Your task to perform on an android device: Open calendar and show me the third week of next month Image 0: 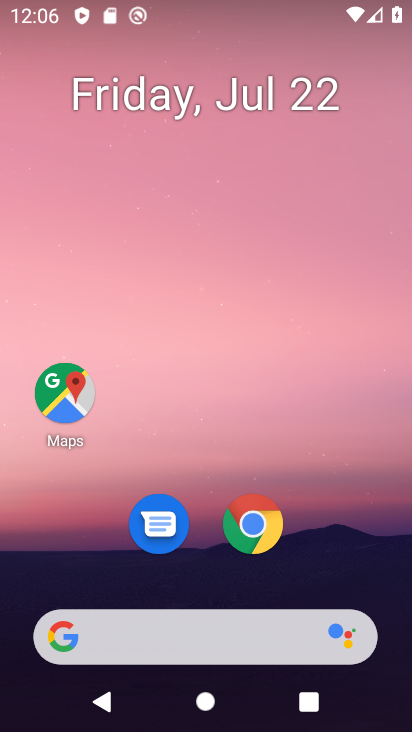
Step 0: drag from (275, 585) to (406, 105)
Your task to perform on an android device: Open calendar and show me the third week of next month Image 1: 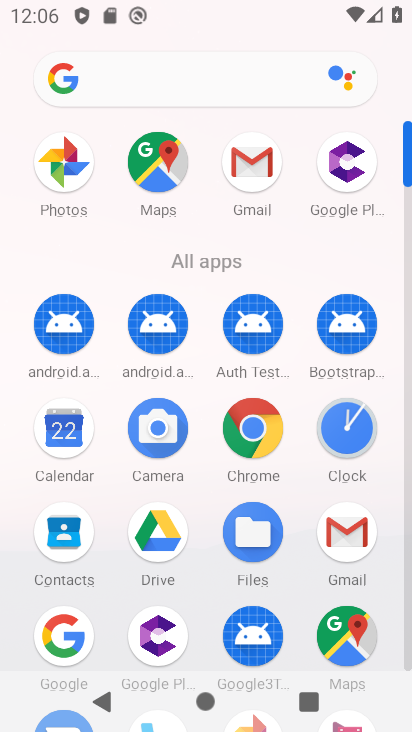
Step 1: click (74, 439)
Your task to perform on an android device: Open calendar and show me the third week of next month Image 2: 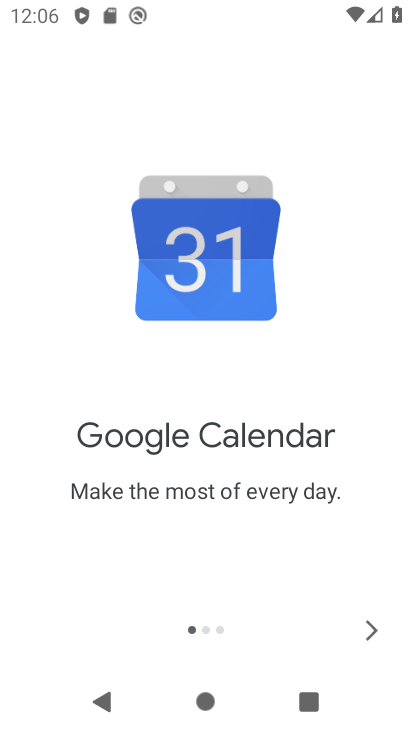
Step 2: click (374, 631)
Your task to perform on an android device: Open calendar and show me the third week of next month Image 3: 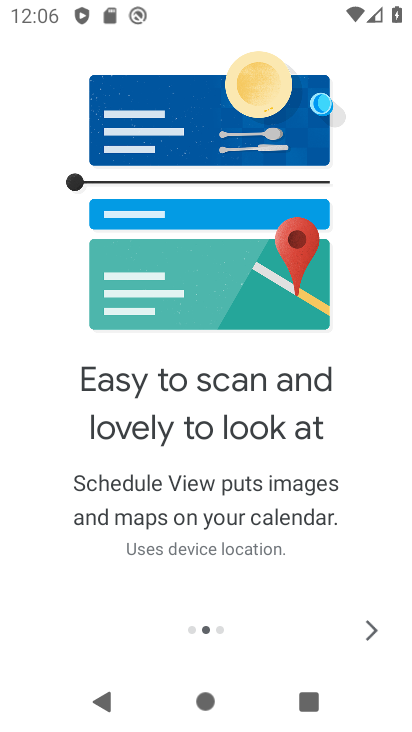
Step 3: click (374, 631)
Your task to perform on an android device: Open calendar and show me the third week of next month Image 4: 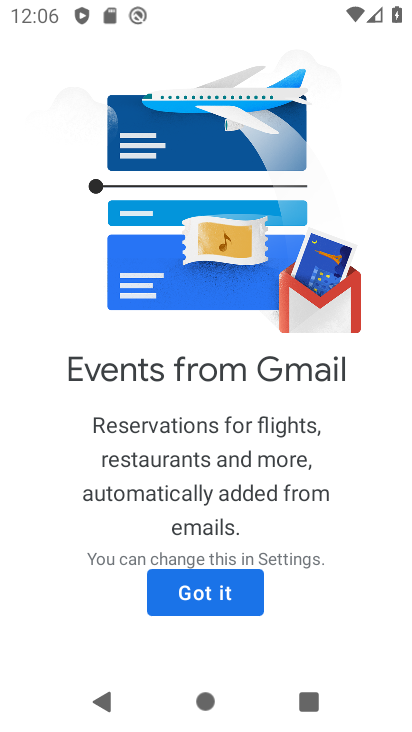
Step 4: click (204, 596)
Your task to perform on an android device: Open calendar and show me the third week of next month Image 5: 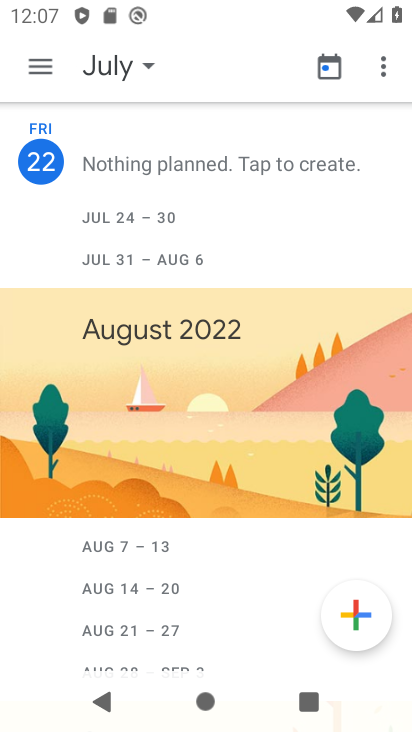
Step 5: click (117, 64)
Your task to perform on an android device: Open calendar and show me the third week of next month Image 6: 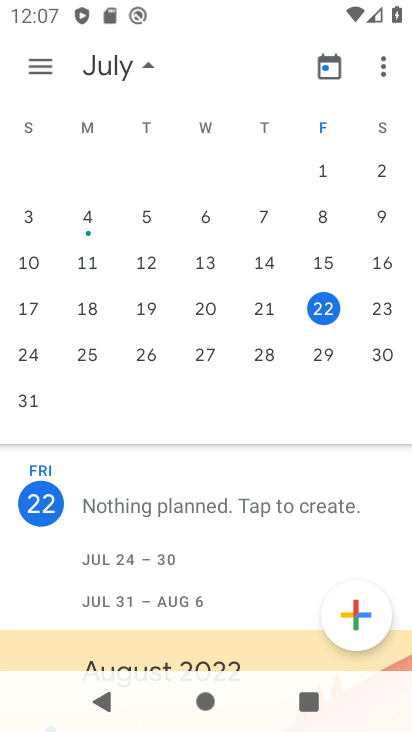
Step 6: drag from (351, 256) to (0, 282)
Your task to perform on an android device: Open calendar and show me the third week of next month Image 7: 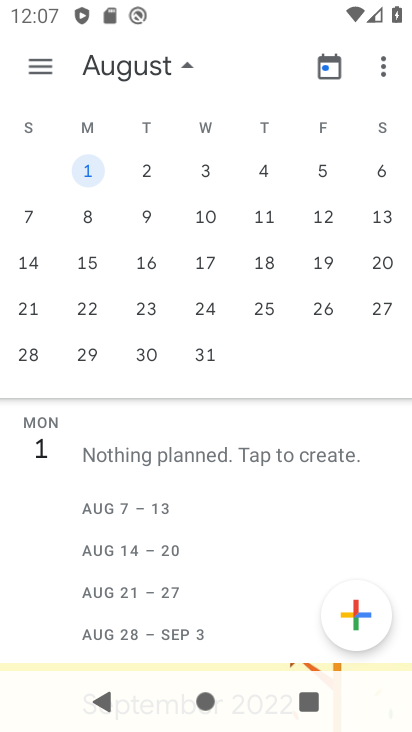
Step 7: click (31, 262)
Your task to perform on an android device: Open calendar and show me the third week of next month Image 8: 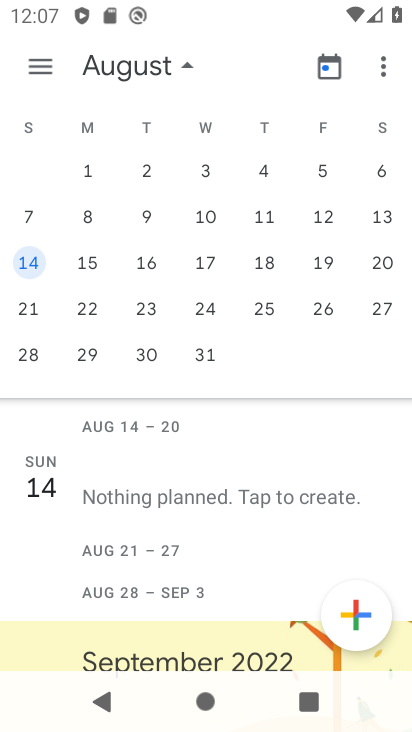
Step 8: click (42, 63)
Your task to perform on an android device: Open calendar and show me the third week of next month Image 9: 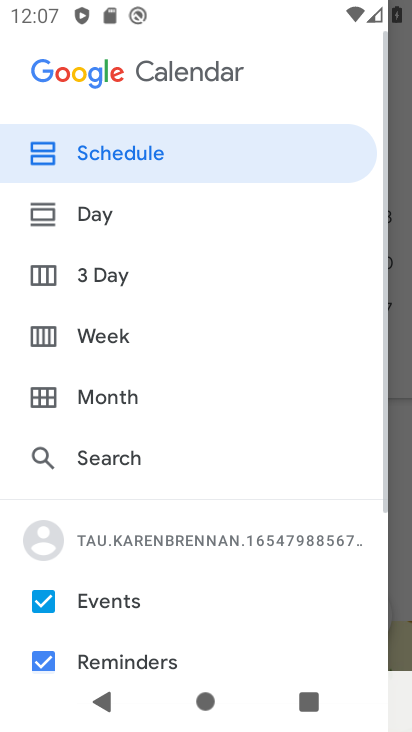
Step 9: click (111, 336)
Your task to perform on an android device: Open calendar and show me the third week of next month Image 10: 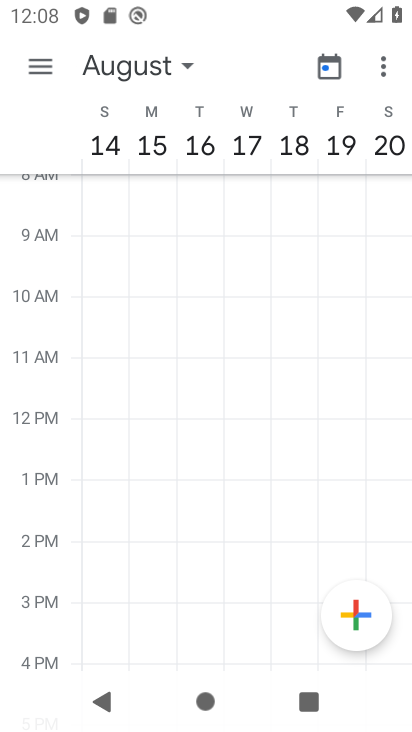
Step 10: task complete